Your task to perform on an android device: allow notifications from all sites in the chrome app Image 0: 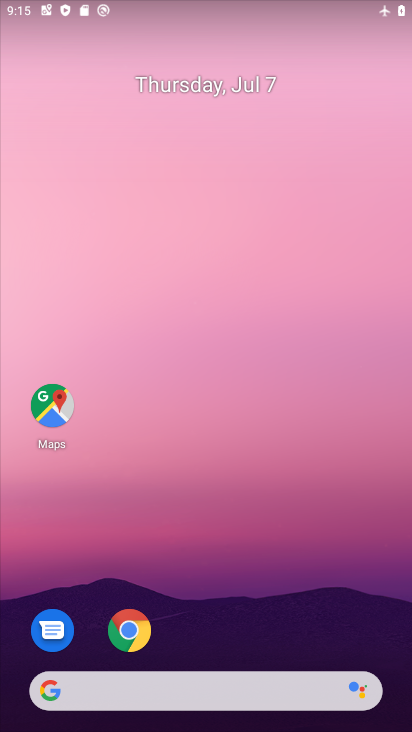
Step 0: click (128, 633)
Your task to perform on an android device: allow notifications from all sites in the chrome app Image 1: 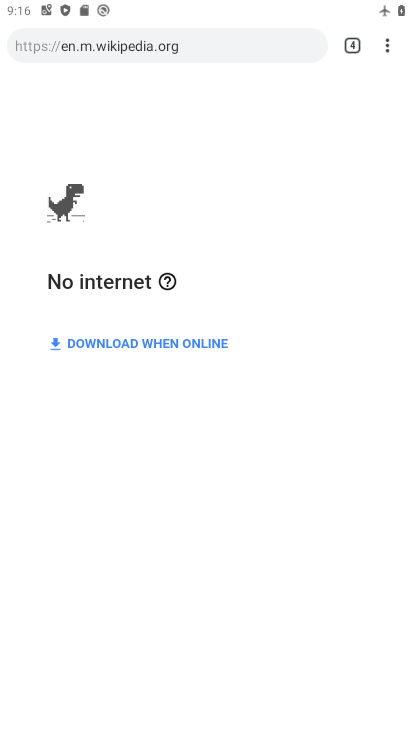
Step 1: click (384, 45)
Your task to perform on an android device: allow notifications from all sites in the chrome app Image 2: 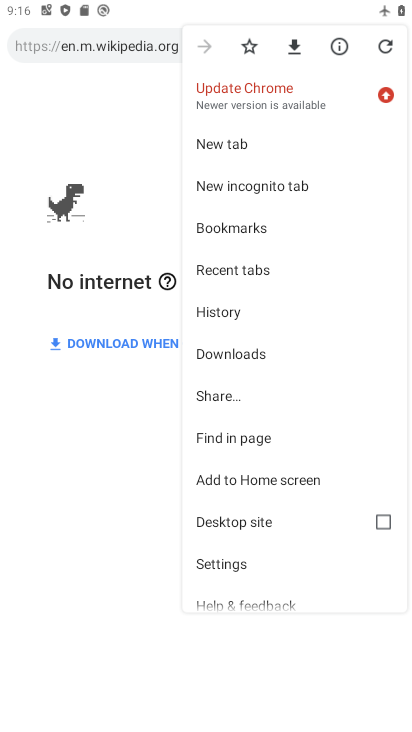
Step 2: click (249, 562)
Your task to perform on an android device: allow notifications from all sites in the chrome app Image 3: 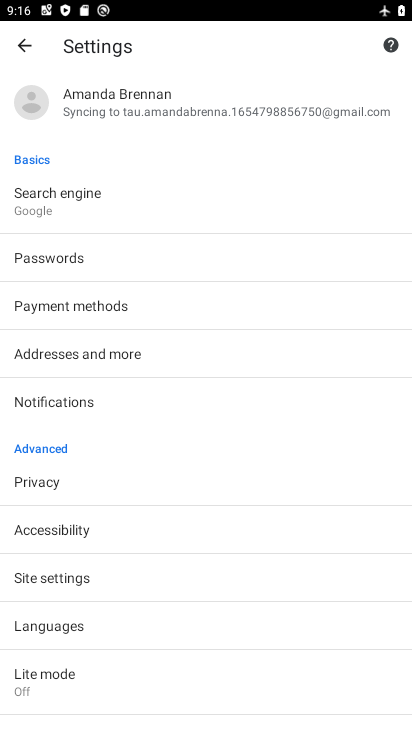
Step 3: click (100, 412)
Your task to perform on an android device: allow notifications from all sites in the chrome app Image 4: 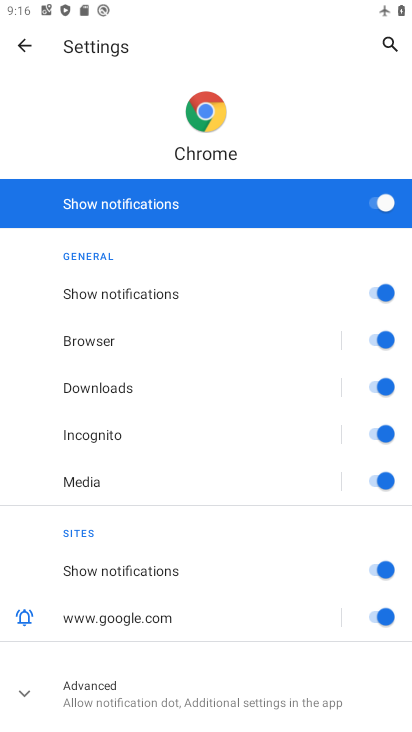
Step 4: click (24, 46)
Your task to perform on an android device: allow notifications from all sites in the chrome app Image 5: 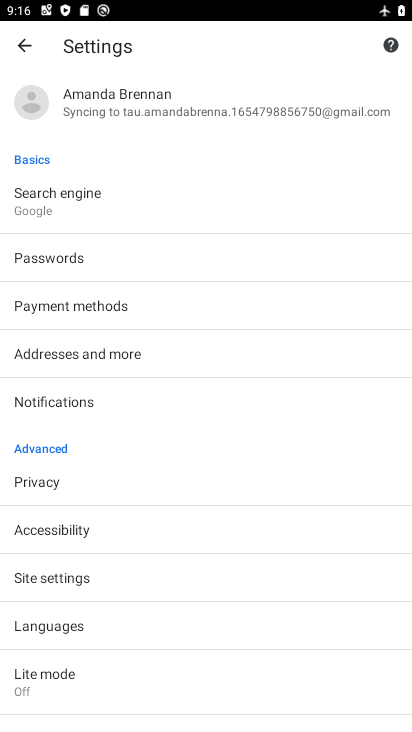
Step 5: click (166, 585)
Your task to perform on an android device: allow notifications from all sites in the chrome app Image 6: 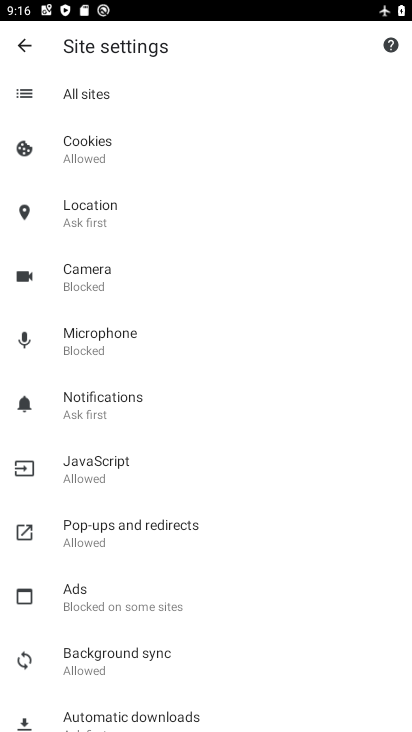
Step 6: click (152, 90)
Your task to perform on an android device: allow notifications from all sites in the chrome app Image 7: 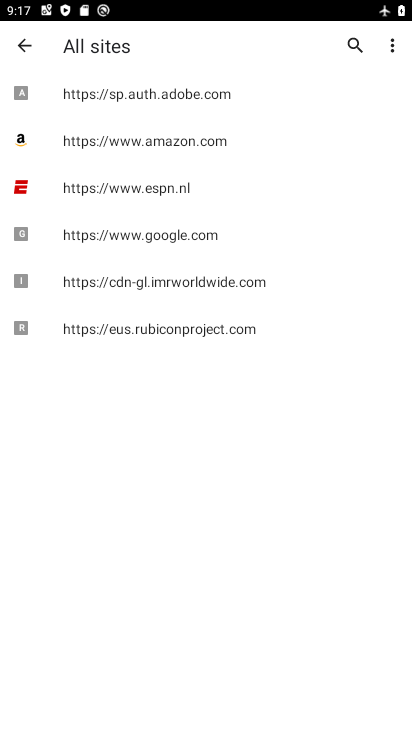
Step 7: click (184, 143)
Your task to perform on an android device: allow notifications from all sites in the chrome app Image 8: 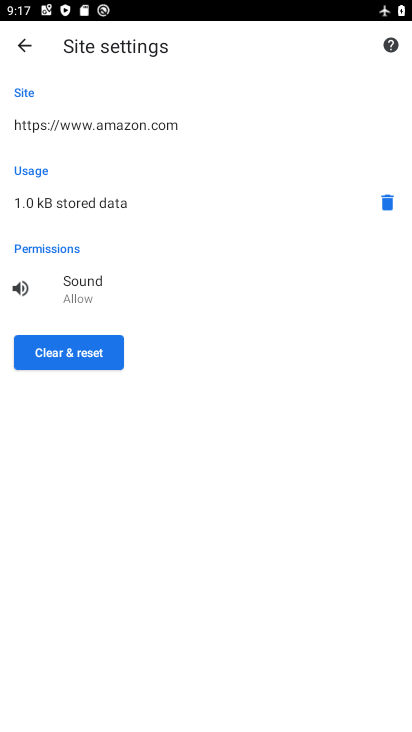
Step 8: click (29, 38)
Your task to perform on an android device: allow notifications from all sites in the chrome app Image 9: 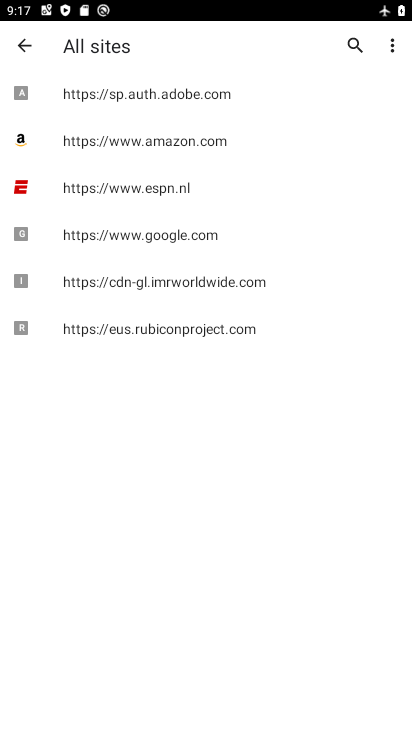
Step 9: click (133, 243)
Your task to perform on an android device: allow notifications from all sites in the chrome app Image 10: 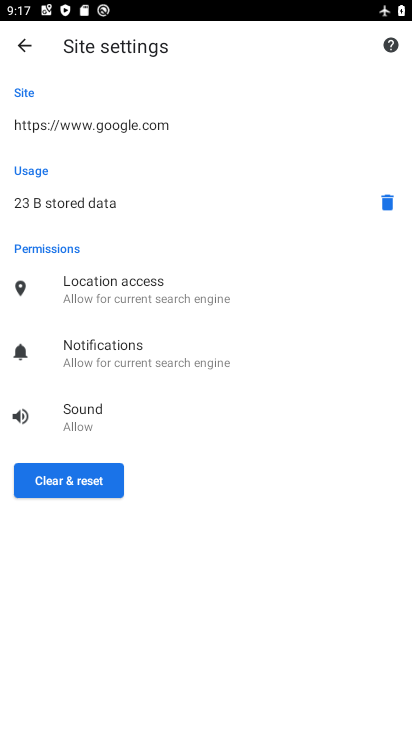
Step 10: click (165, 362)
Your task to perform on an android device: allow notifications from all sites in the chrome app Image 11: 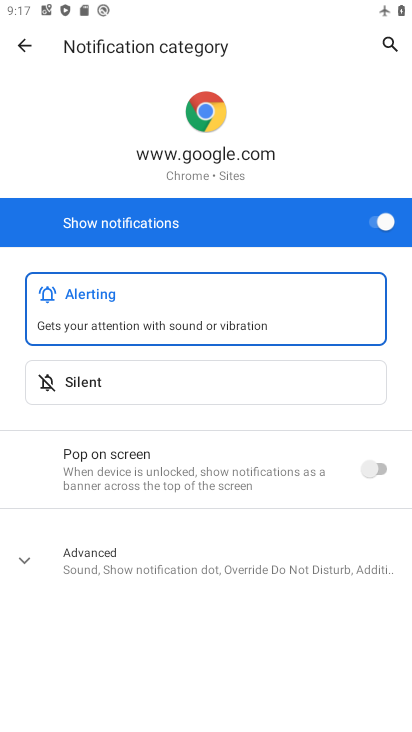
Step 11: task complete